Your task to perform on an android device: Open accessibility settings Image 0: 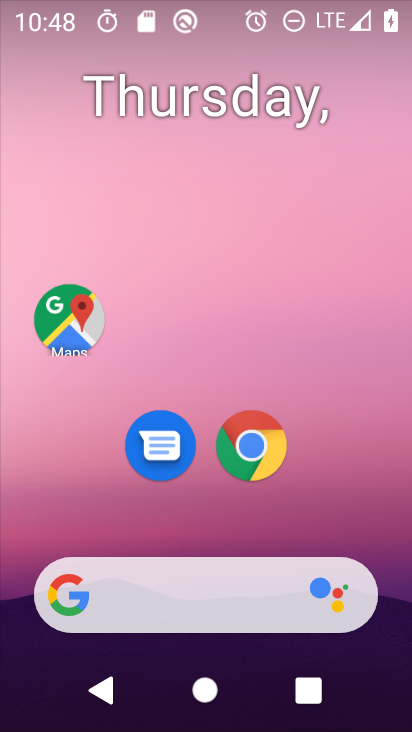
Step 0: drag from (173, 546) to (230, 208)
Your task to perform on an android device: Open accessibility settings Image 1: 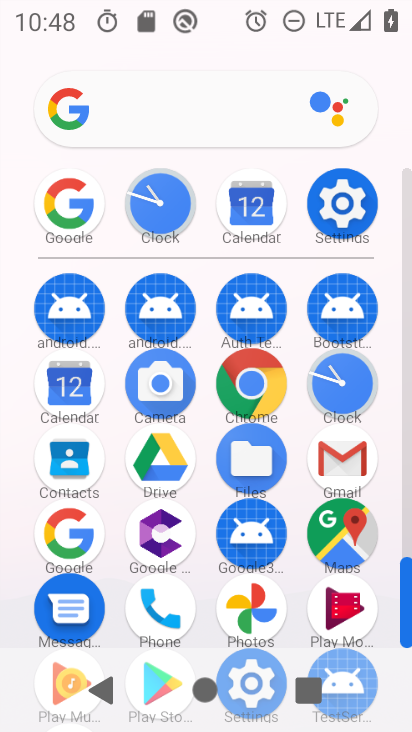
Step 1: click (359, 198)
Your task to perform on an android device: Open accessibility settings Image 2: 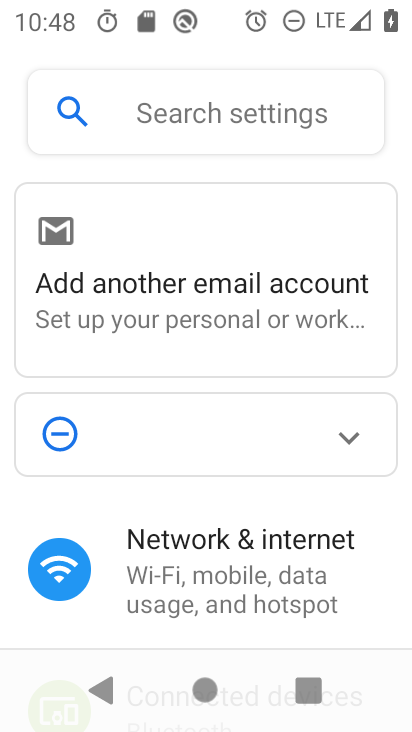
Step 2: drag from (223, 507) to (407, 207)
Your task to perform on an android device: Open accessibility settings Image 3: 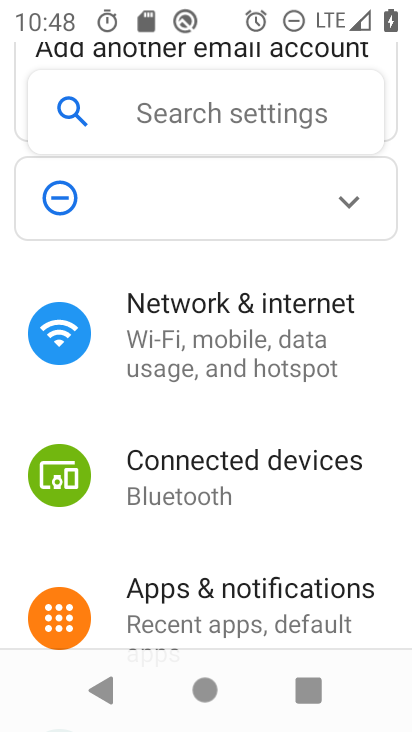
Step 3: drag from (247, 478) to (388, 495)
Your task to perform on an android device: Open accessibility settings Image 4: 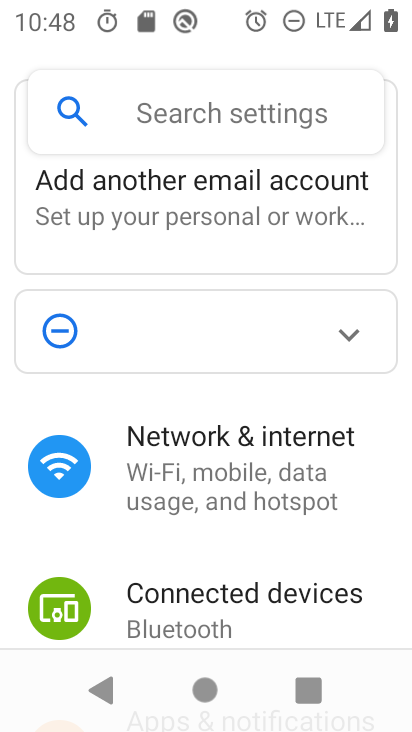
Step 4: drag from (212, 589) to (242, 136)
Your task to perform on an android device: Open accessibility settings Image 5: 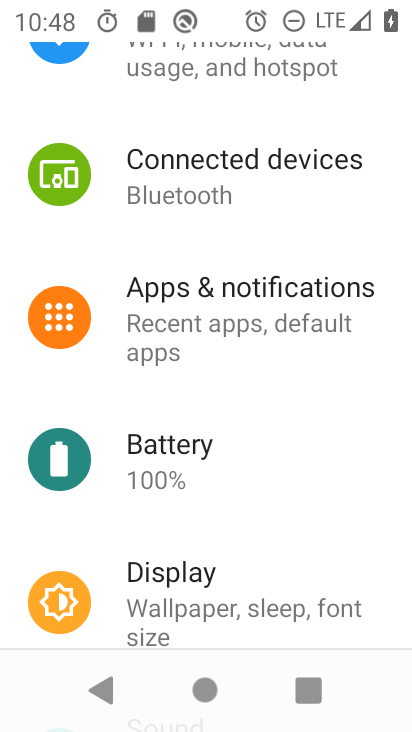
Step 5: drag from (226, 560) to (388, 186)
Your task to perform on an android device: Open accessibility settings Image 6: 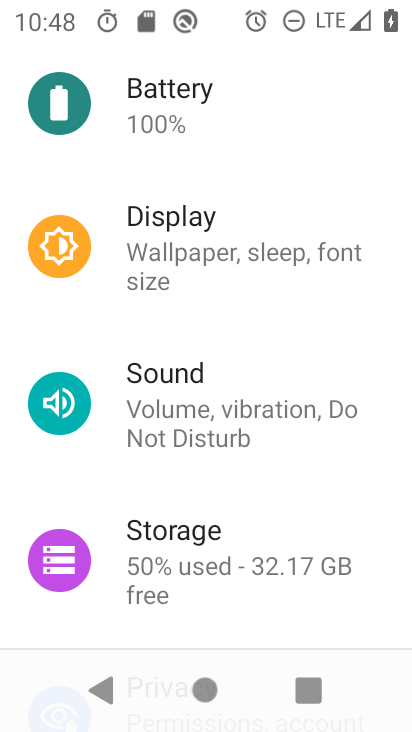
Step 6: drag from (190, 612) to (315, 193)
Your task to perform on an android device: Open accessibility settings Image 7: 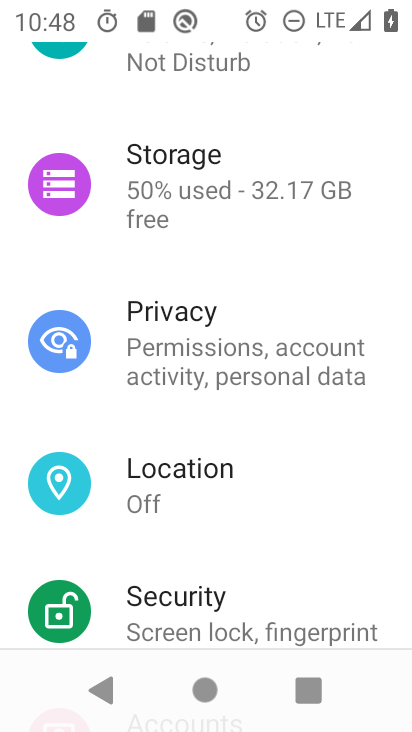
Step 7: drag from (230, 552) to (330, 138)
Your task to perform on an android device: Open accessibility settings Image 8: 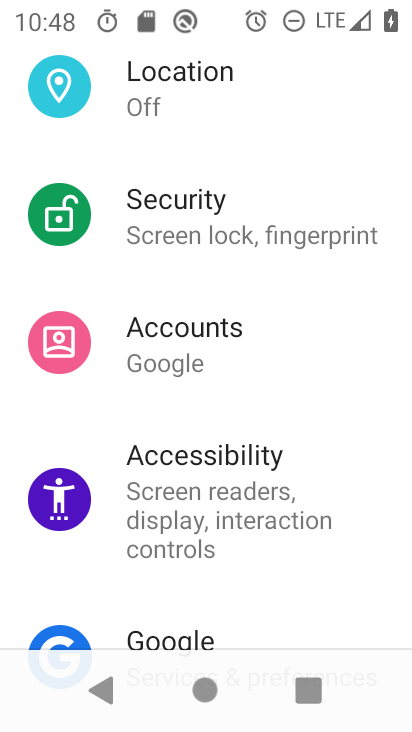
Step 8: click (187, 500)
Your task to perform on an android device: Open accessibility settings Image 9: 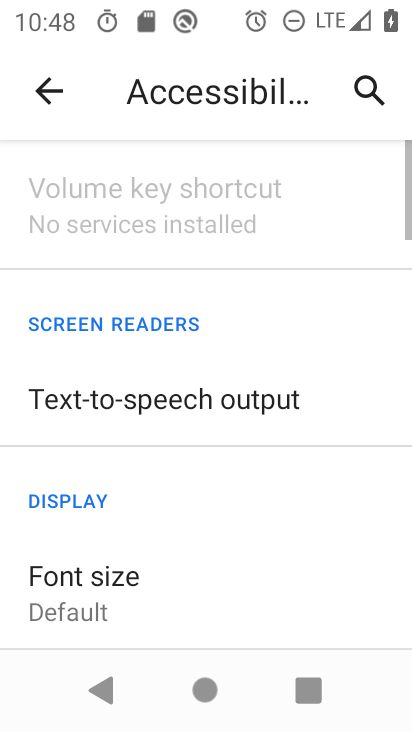
Step 9: task complete